Your task to perform on an android device: open the mobile data screen to see how much data has been used Image 0: 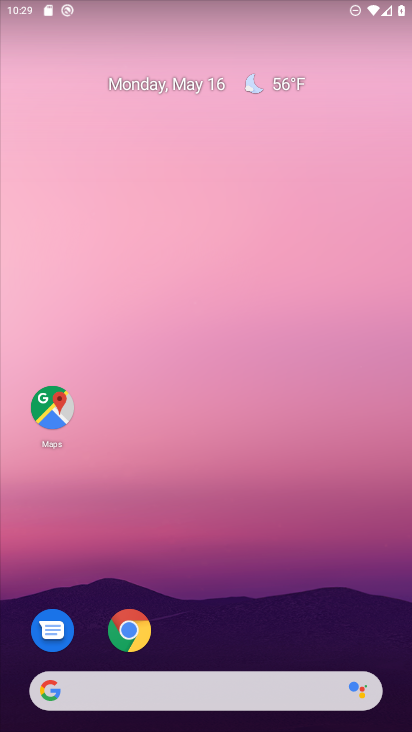
Step 0: drag from (246, 629) to (343, 31)
Your task to perform on an android device: open the mobile data screen to see how much data has been used Image 1: 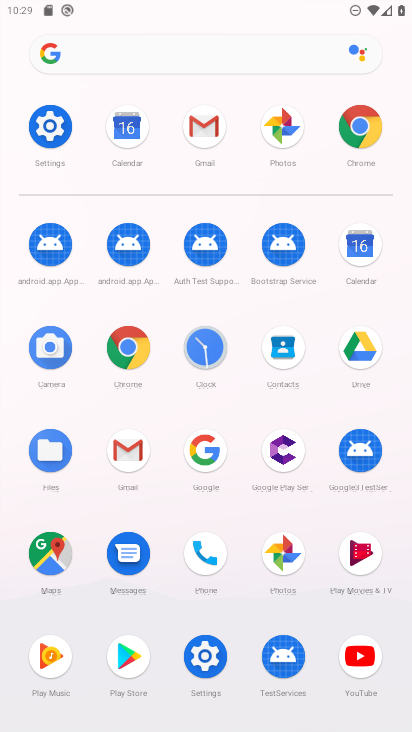
Step 1: click (199, 656)
Your task to perform on an android device: open the mobile data screen to see how much data has been used Image 2: 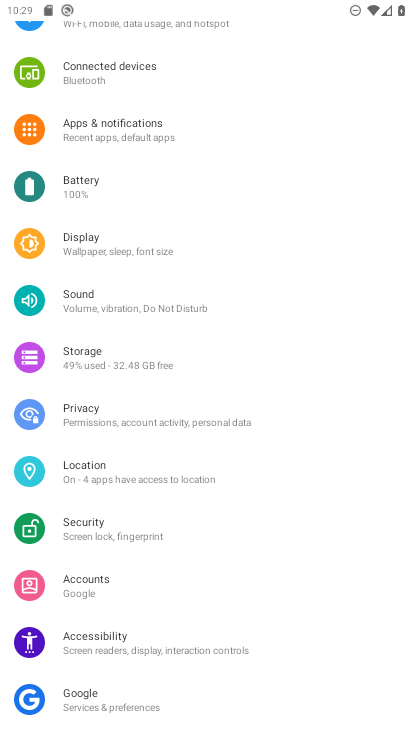
Step 2: drag from (153, 107) to (169, 348)
Your task to perform on an android device: open the mobile data screen to see how much data has been used Image 3: 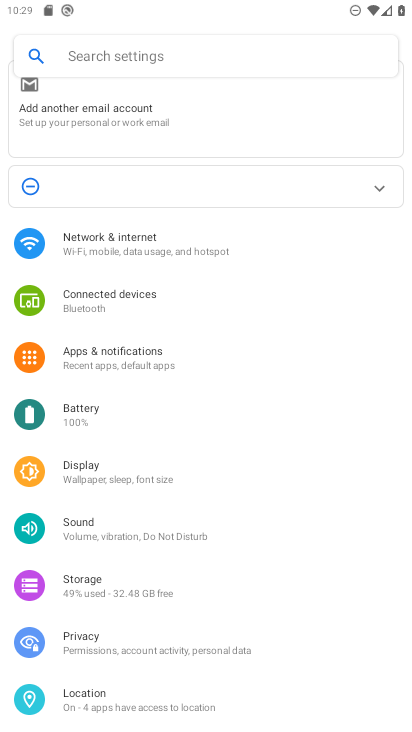
Step 3: click (135, 248)
Your task to perform on an android device: open the mobile data screen to see how much data has been used Image 4: 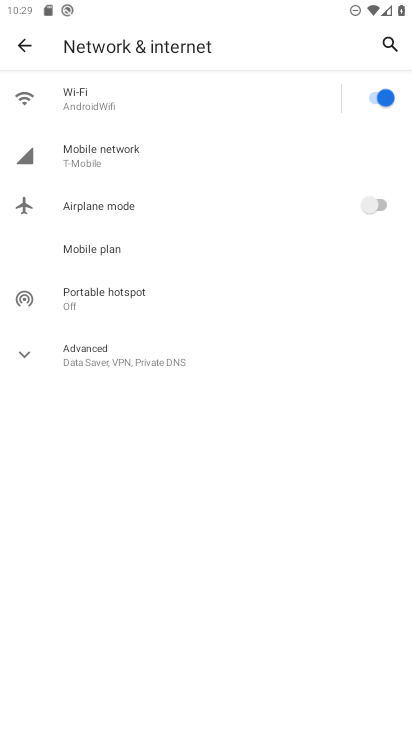
Step 4: click (86, 171)
Your task to perform on an android device: open the mobile data screen to see how much data has been used Image 5: 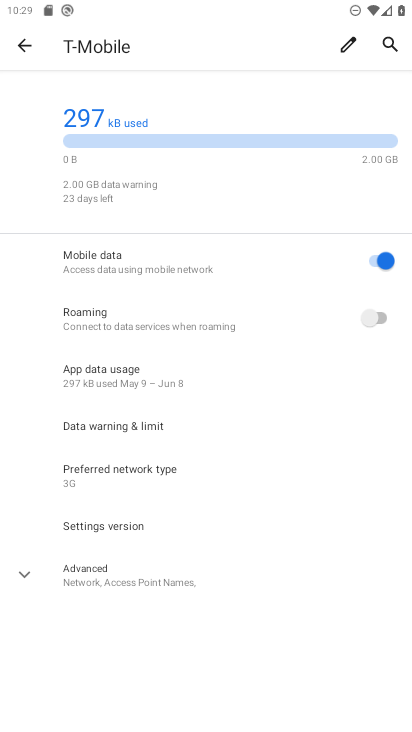
Step 5: task complete